Your task to perform on an android device: Turn off the flashlight Image 0: 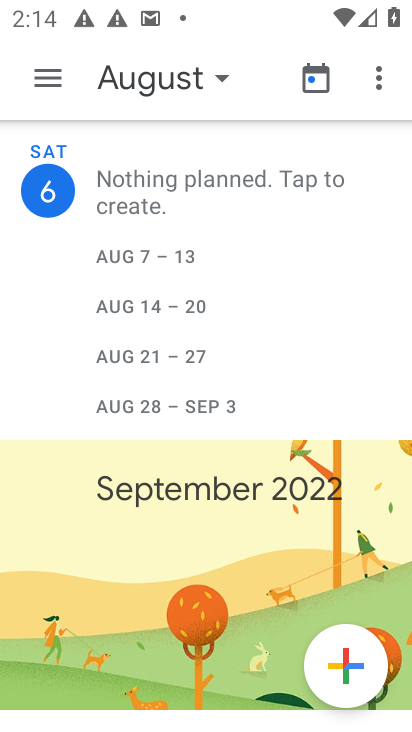
Step 0: press home button
Your task to perform on an android device: Turn off the flashlight Image 1: 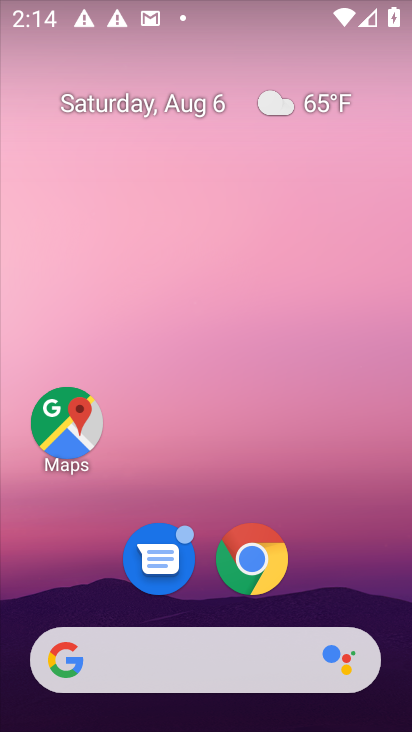
Step 1: drag from (193, 510) to (179, 178)
Your task to perform on an android device: Turn off the flashlight Image 2: 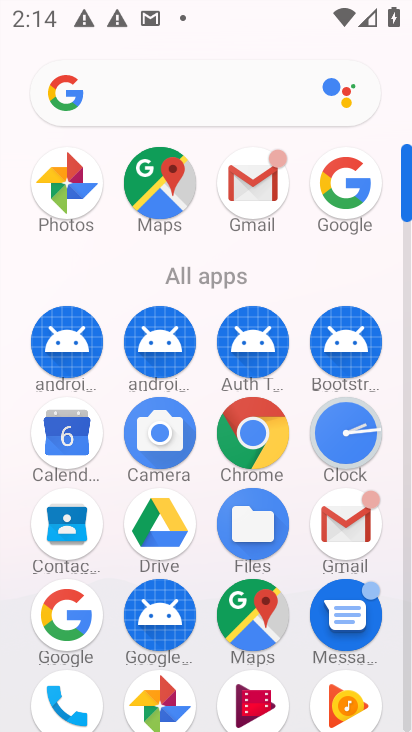
Step 2: drag from (201, 473) to (198, 174)
Your task to perform on an android device: Turn off the flashlight Image 3: 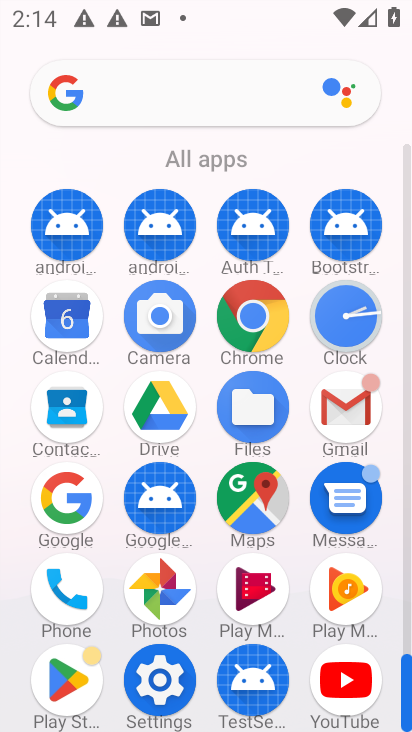
Step 3: click (165, 675)
Your task to perform on an android device: Turn off the flashlight Image 4: 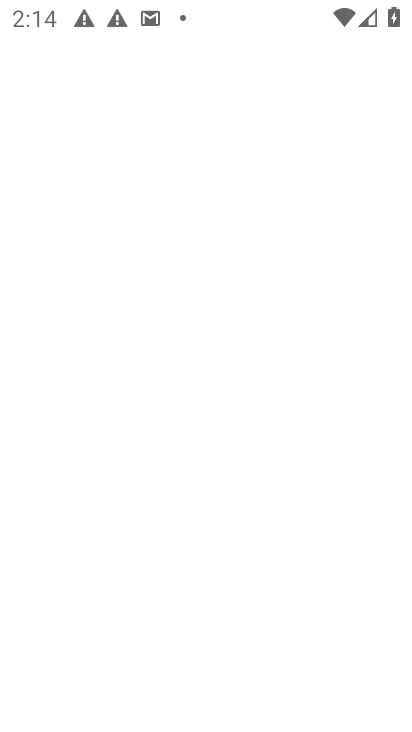
Step 4: task complete